Your task to perform on an android device: check battery use Image 0: 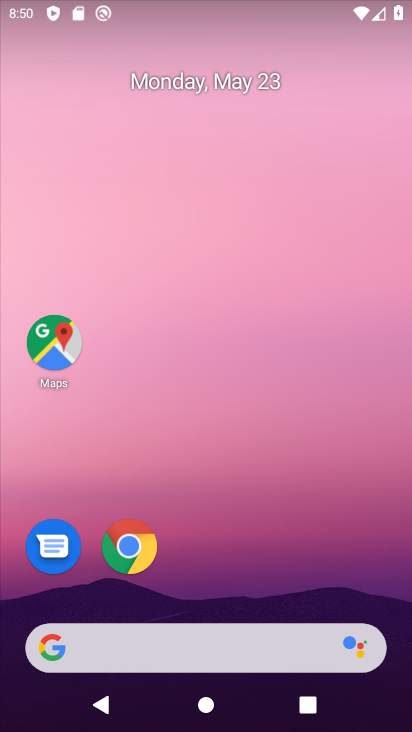
Step 0: drag from (406, 564) to (276, 15)
Your task to perform on an android device: check battery use Image 1: 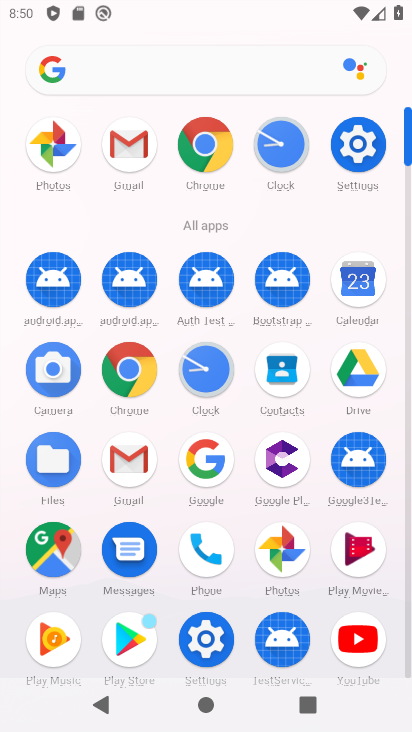
Step 1: click (352, 145)
Your task to perform on an android device: check battery use Image 2: 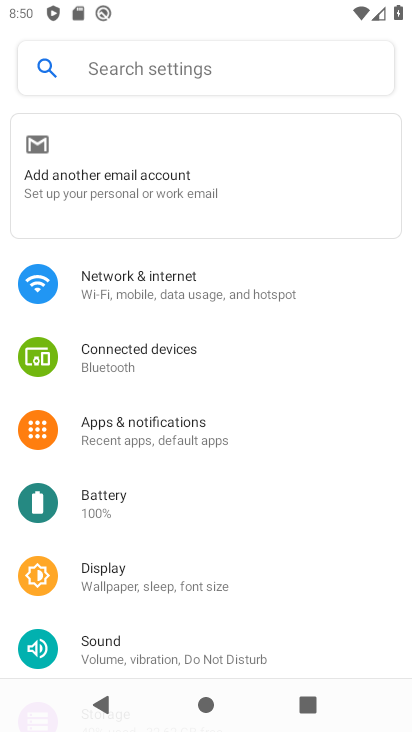
Step 2: drag from (249, 551) to (288, 26)
Your task to perform on an android device: check battery use Image 3: 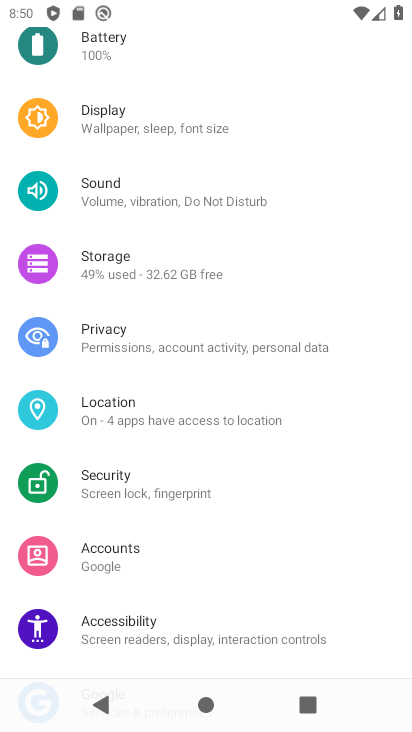
Step 3: drag from (188, 150) to (45, 453)
Your task to perform on an android device: check battery use Image 4: 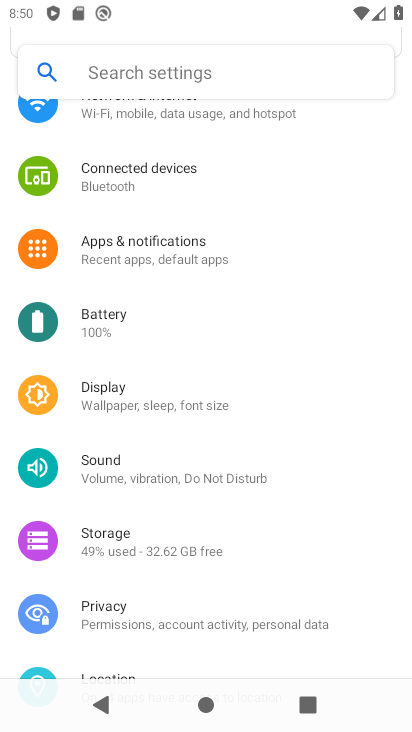
Step 4: click (91, 302)
Your task to perform on an android device: check battery use Image 5: 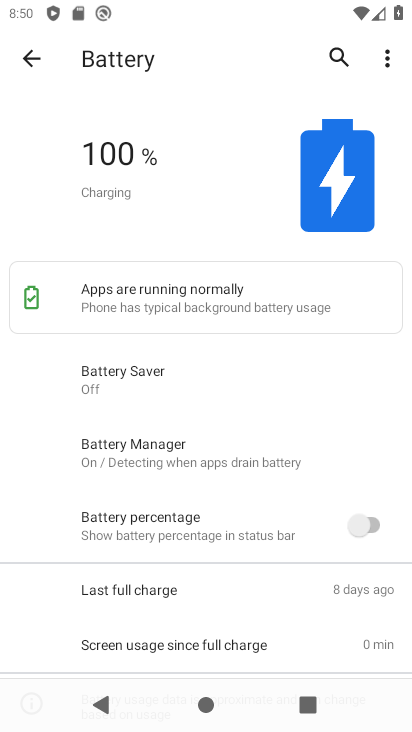
Step 5: click (384, 58)
Your task to perform on an android device: check battery use Image 6: 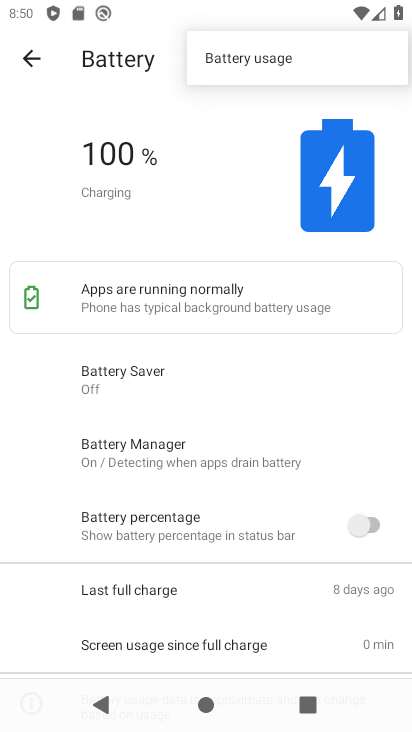
Step 6: click (328, 54)
Your task to perform on an android device: check battery use Image 7: 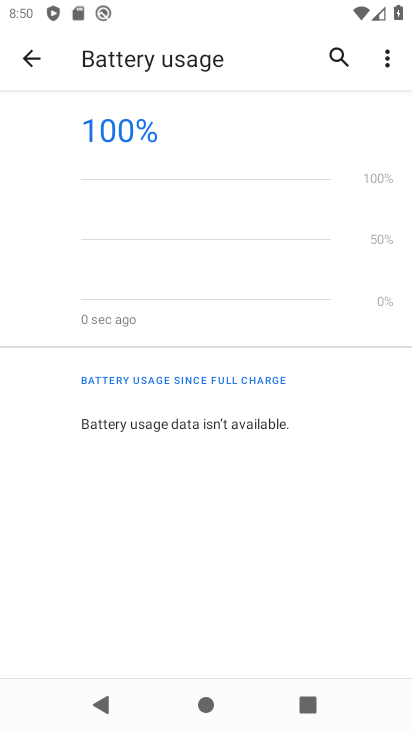
Step 7: task complete